Your task to perform on an android device: turn off smart reply in the gmail app Image 0: 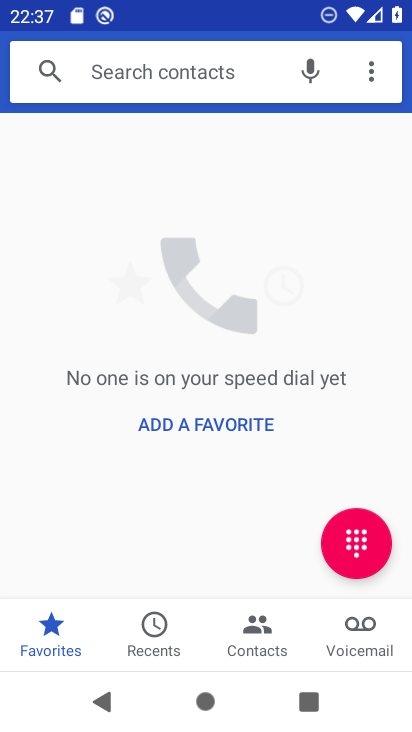
Step 0: press home button
Your task to perform on an android device: turn off smart reply in the gmail app Image 1: 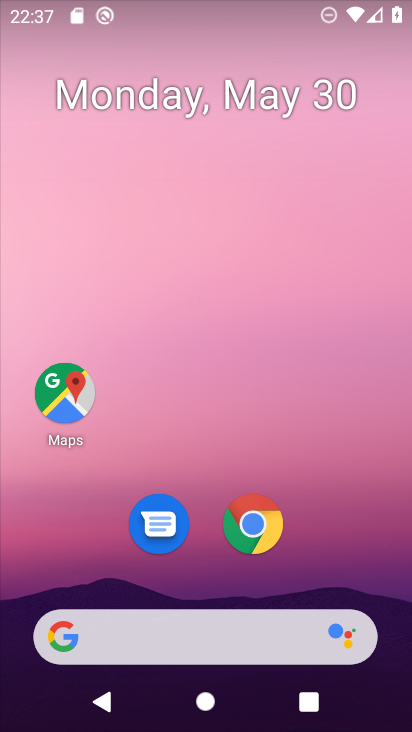
Step 1: drag from (309, 536) to (312, 37)
Your task to perform on an android device: turn off smart reply in the gmail app Image 2: 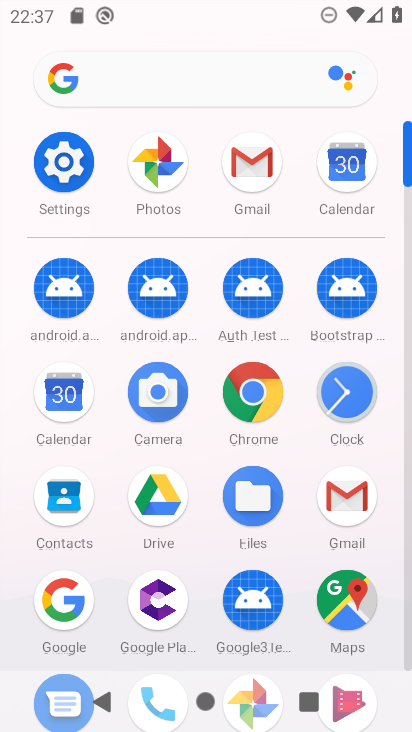
Step 2: click (270, 149)
Your task to perform on an android device: turn off smart reply in the gmail app Image 3: 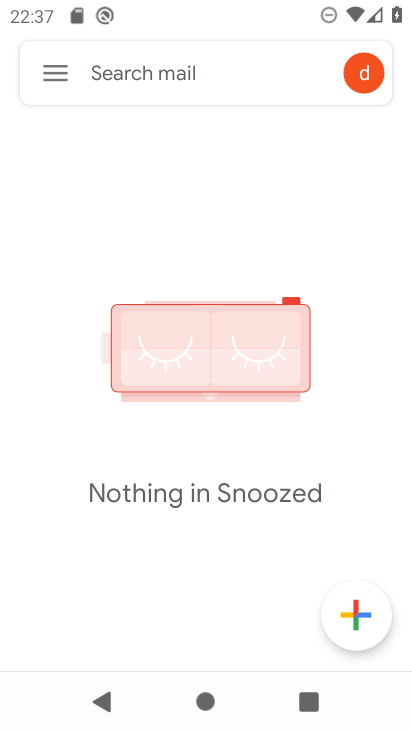
Step 3: click (51, 70)
Your task to perform on an android device: turn off smart reply in the gmail app Image 4: 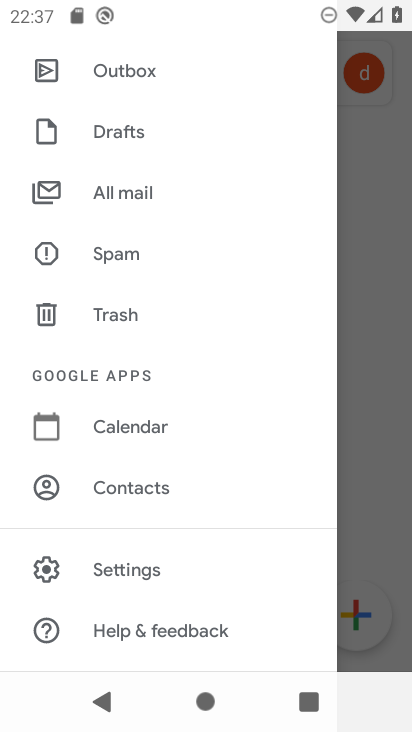
Step 4: click (154, 558)
Your task to perform on an android device: turn off smart reply in the gmail app Image 5: 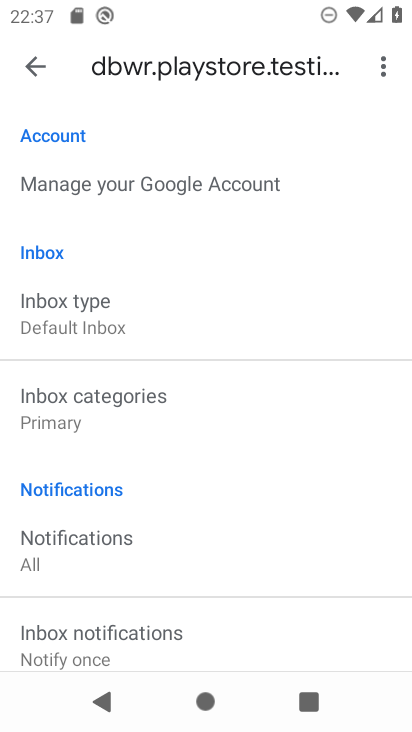
Step 5: drag from (214, 476) to (223, 110)
Your task to perform on an android device: turn off smart reply in the gmail app Image 6: 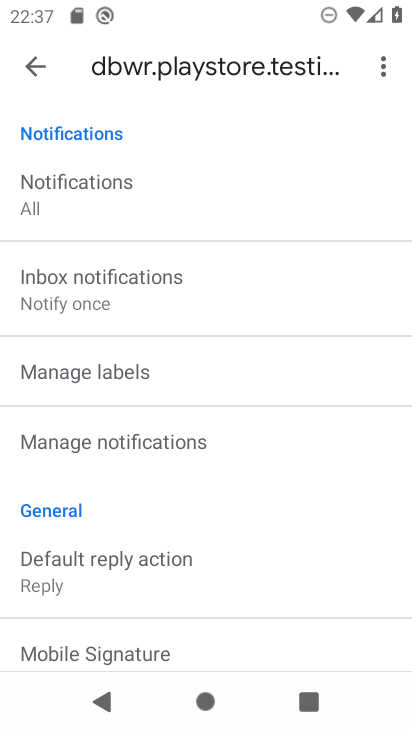
Step 6: drag from (262, 580) to (256, 107)
Your task to perform on an android device: turn off smart reply in the gmail app Image 7: 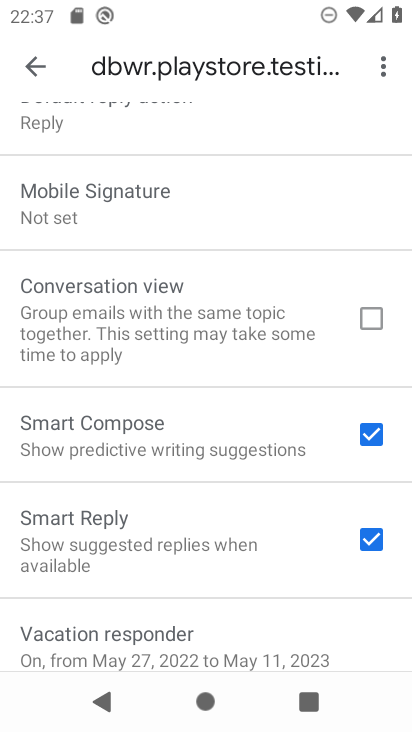
Step 7: click (364, 535)
Your task to perform on an android device: turn off smart reply in the gmail app Image 8: 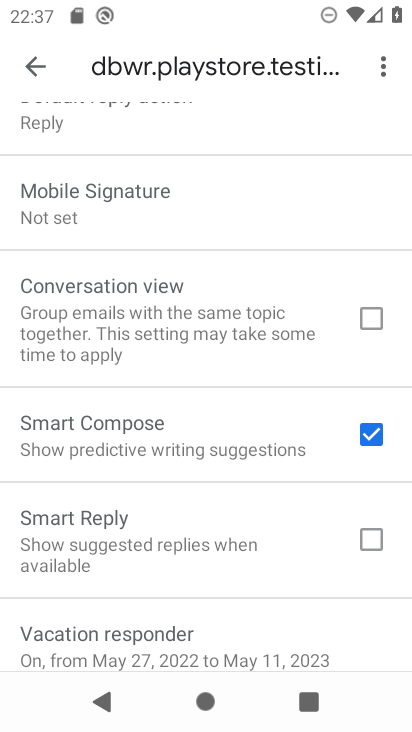
Step 8: task complete